Your task to perform on an android device: open app "Flipkart Online Shopping App" Image 0: 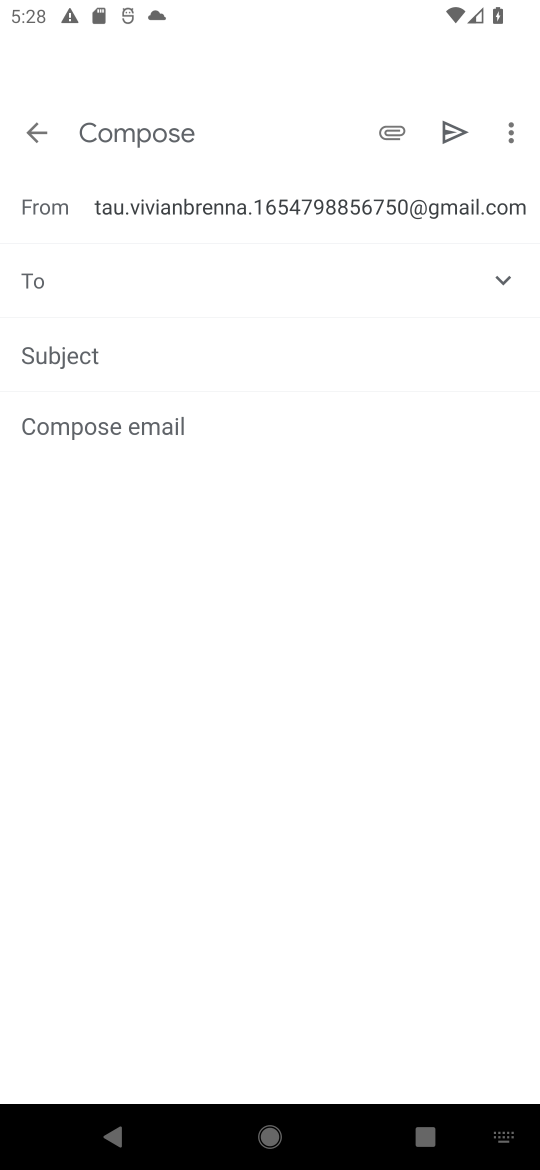
Step 0: press home button
Your task to perform on an android device: open app "Flipkart Online Shopping App" Image 1: 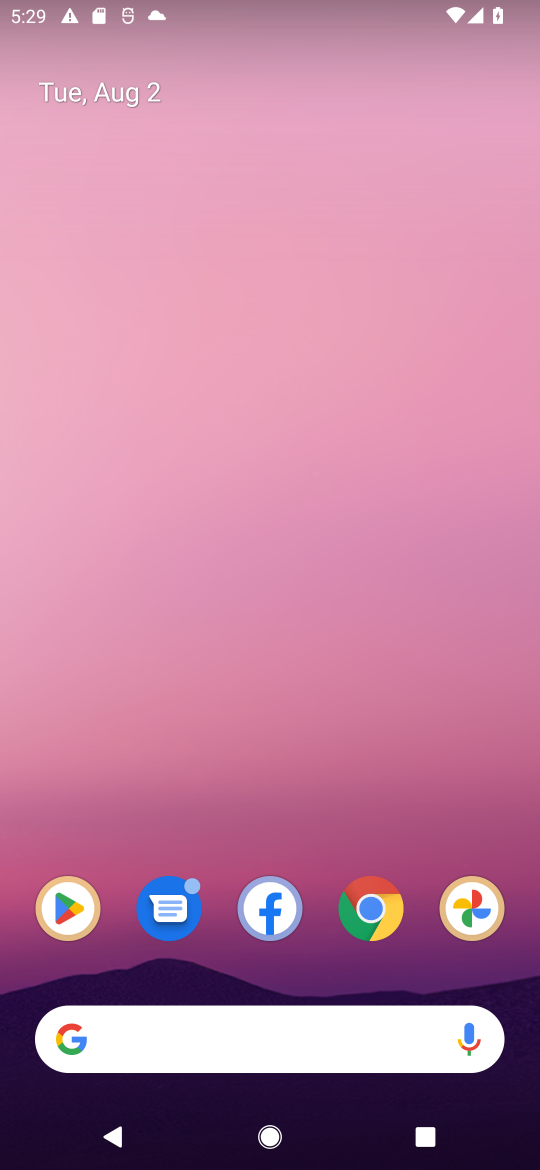
Step 1: click (63, 903)
Your task to perform on an android device: open app "Flipkart Online Shopping App" Image 2: 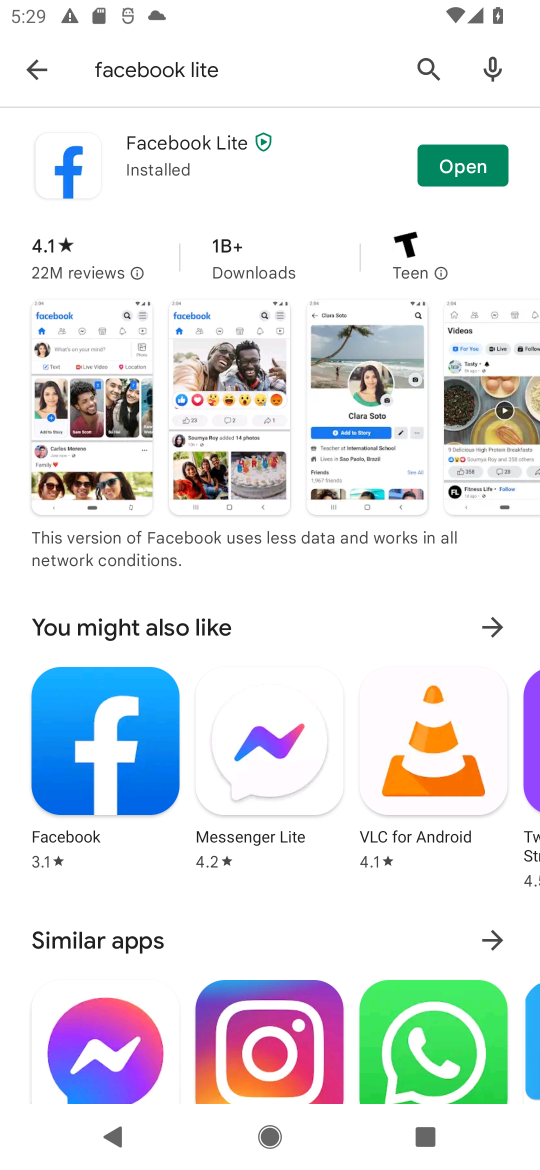
Step 2: click (428, 57)
Your task to perform on an android device: open app "Flipkart Online Shopping App" Image 3: 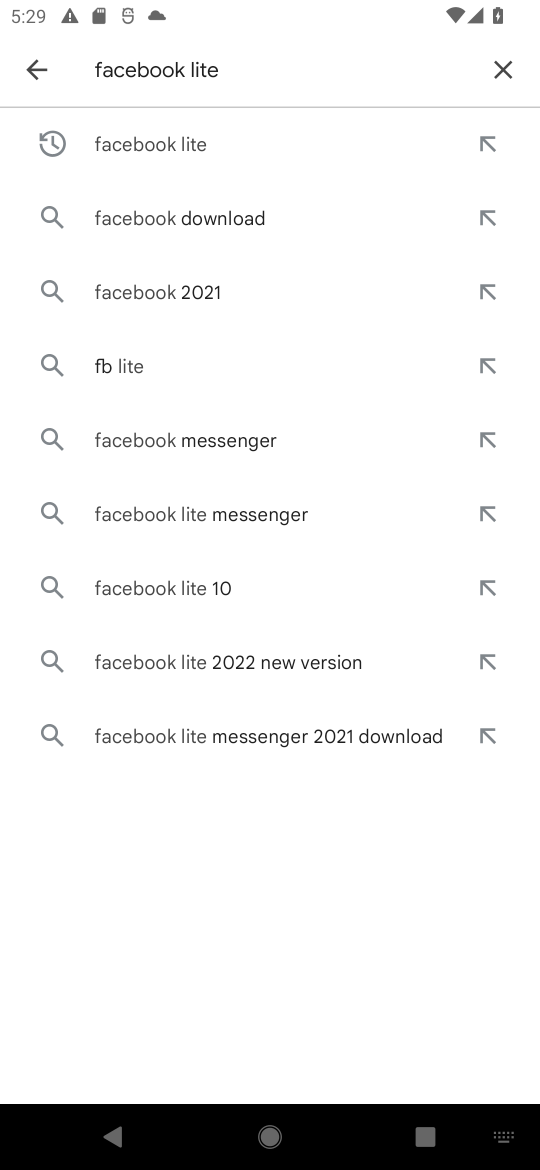
Step 3: click (509, 57)
Your task to perform on an android device: open app "Flipkart Online Shopping App" Image 4: 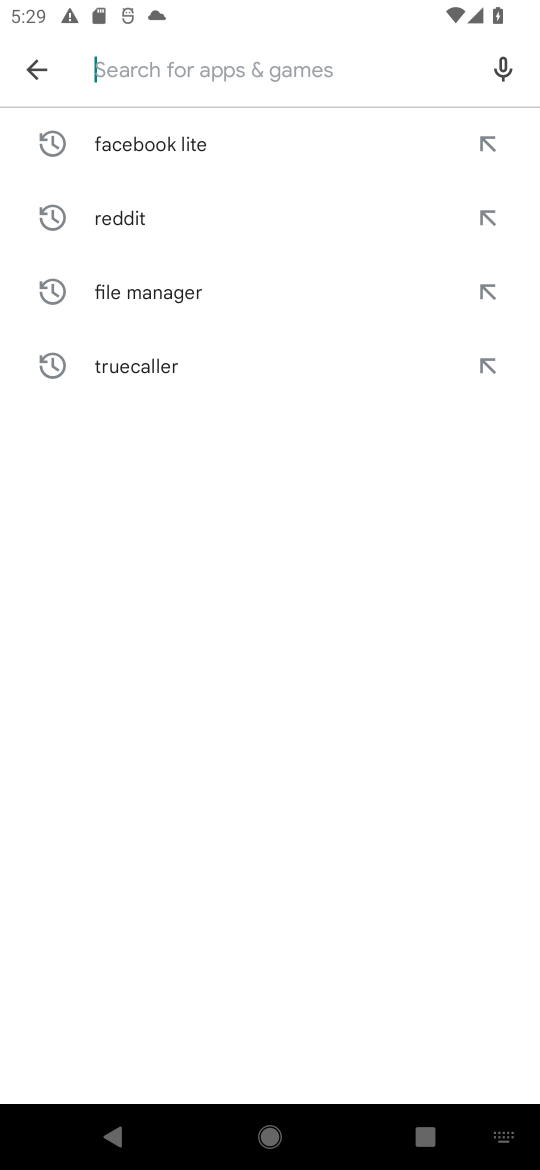
Step 4: type "Flipkart Online Shopping App"
Your task to perform on an android device: open app "Flipkart Online Shopping App" Image 5: 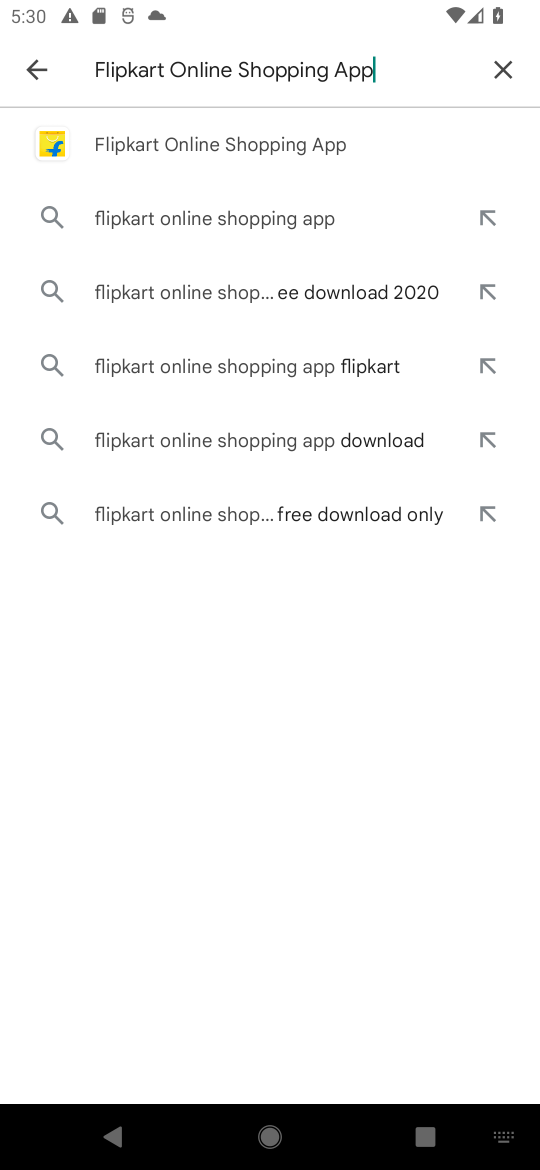
Step 5: click (251, 145)
Your task to perform on an android device: open app "Flipkart Online Shopping App" Image 6: 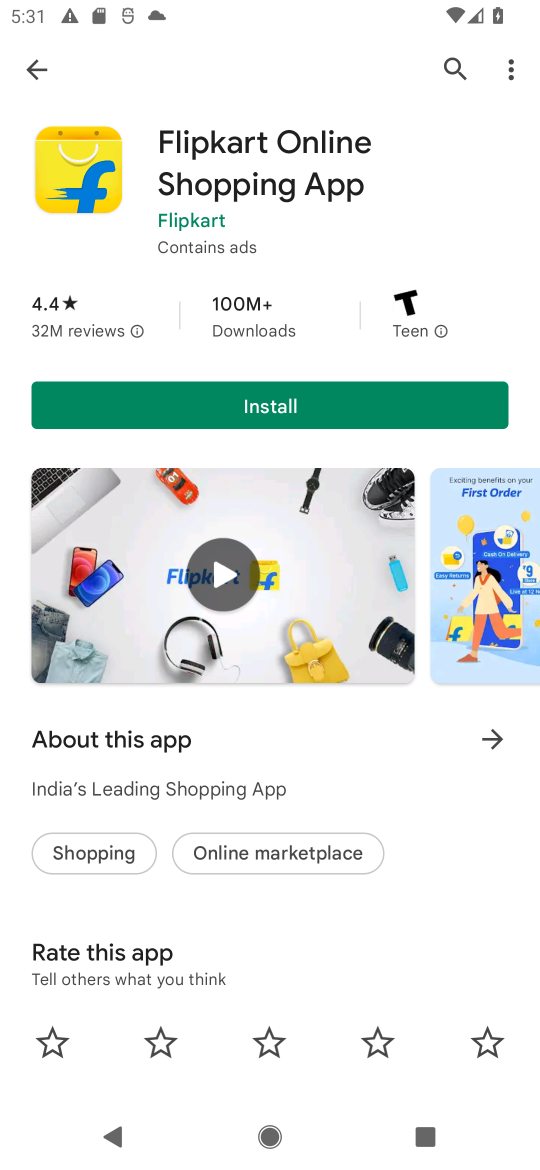
Step 6: task complete